Your task to perform on an android device: turn off location Image 0: 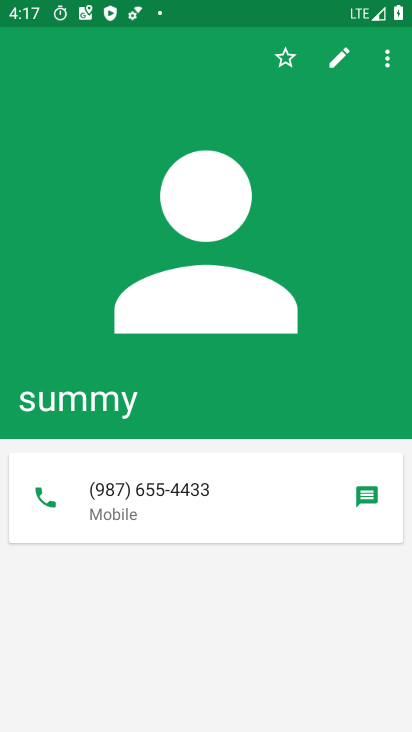
Step 0: press home button
Your task to perform on an android device: turn off location Image 1: 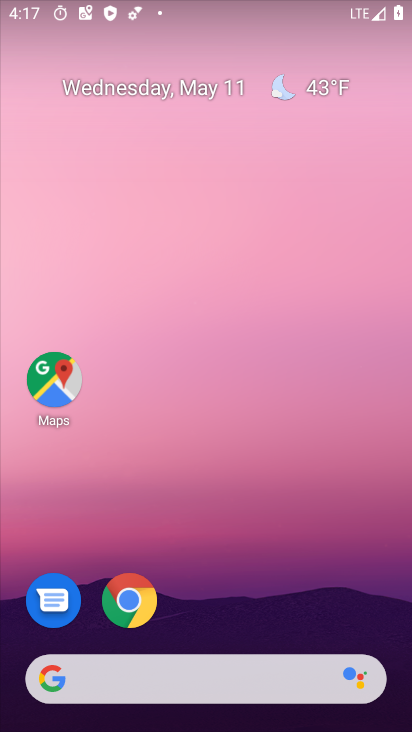
Step 1: drag from (275, 595) to (317, 5)
Your task to perform on an android device: turn off location Image 2: 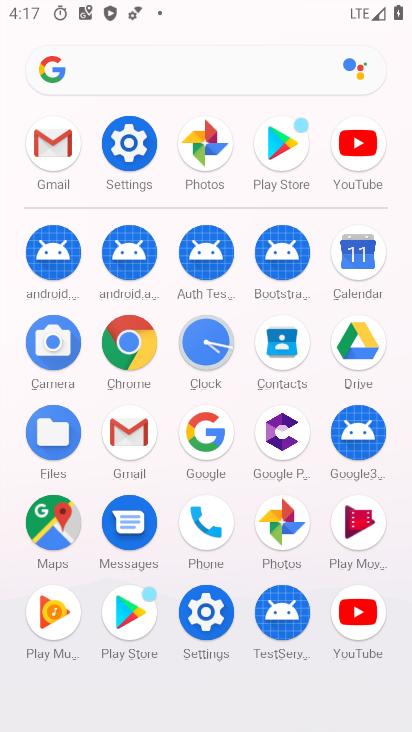
Step 2: click (133, 146)
Your task to perform on an android device: turn off location Image 3: 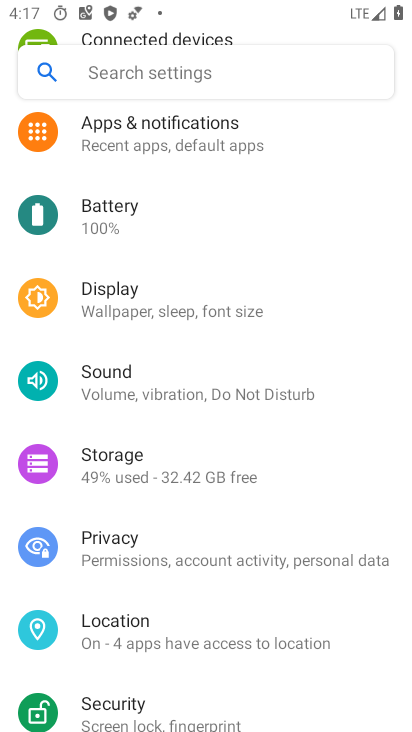
Step 3: drag from (217, 262) to (242, 204)
Your task to perform on an android device: turn off location Image 4: 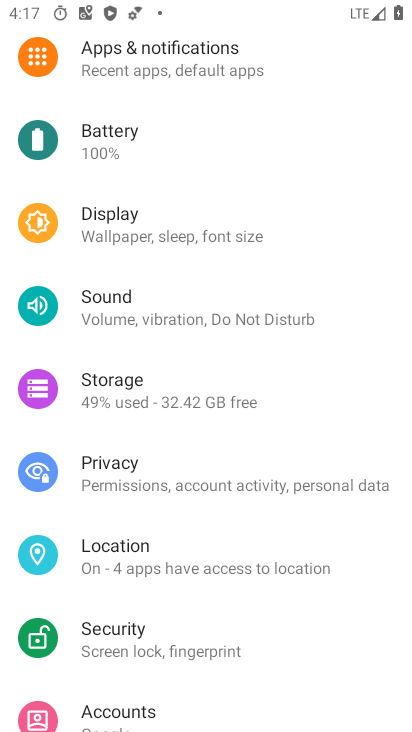
Step 4: click (109, 555)
Your task to perform on an android device: turn off location Image 5: 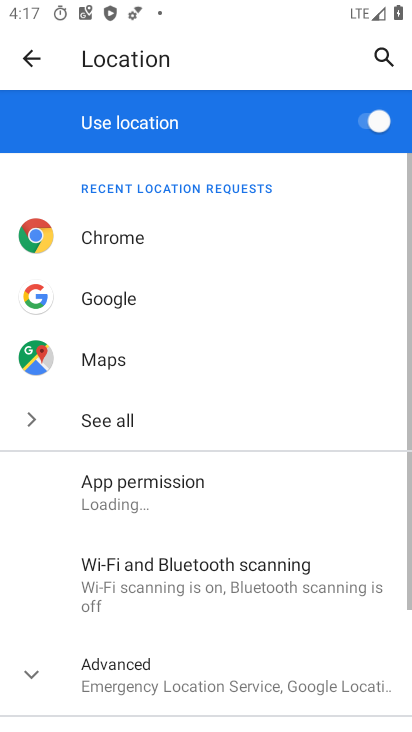
Step 5: click (378, 125)
Your task to perform on an android device: turn off location Image 6: 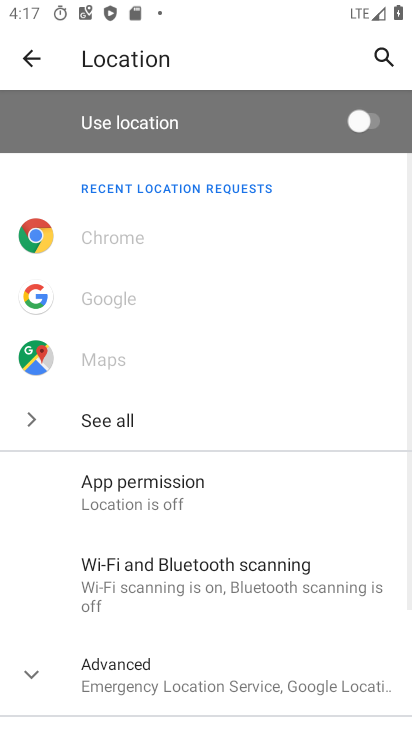
Step 6: task complete